Your task to perform on an android device: turn off wifi Image 0: 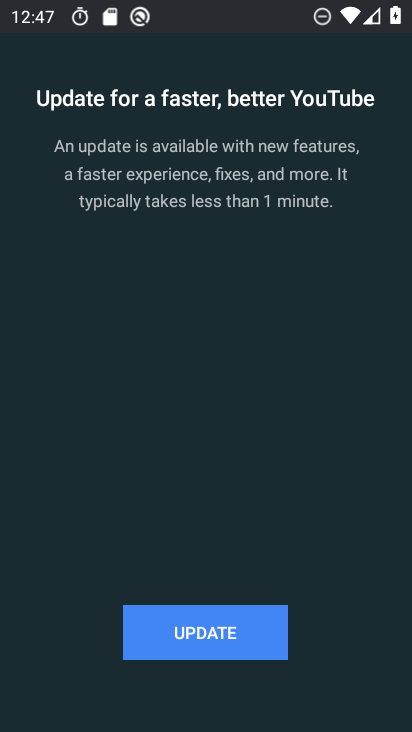
Step 0: press back button
Your task to perform on an android device: turn off wifi Image 1: 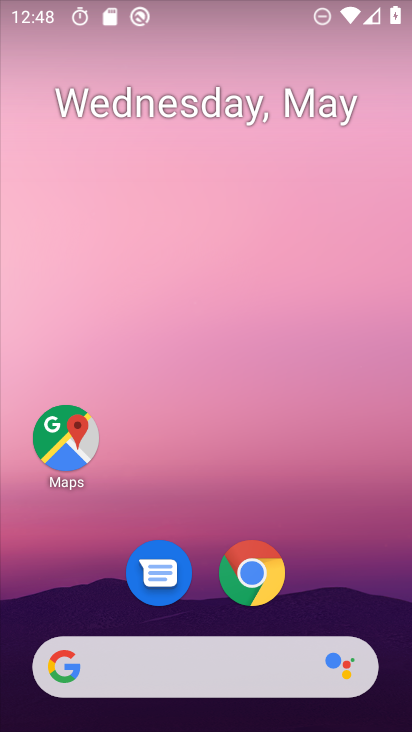
Step 1: drag from (343, 587) to (263, 56)
Your task to perform on an android device: turn off wifi Image 2: 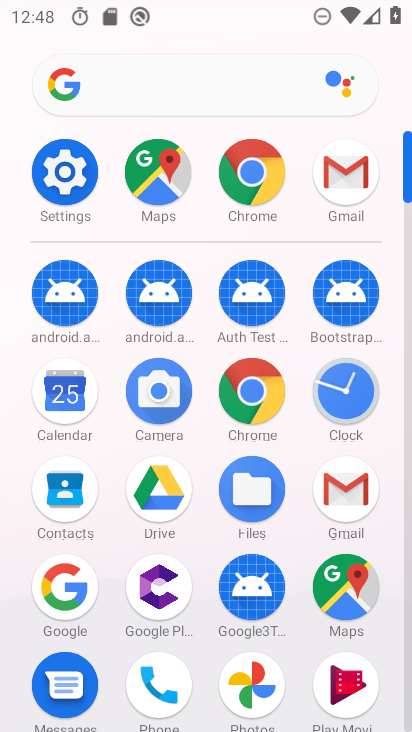
Step 2: click (65, 165)
Your task to perform on an android device: turn off wifi Image 3: 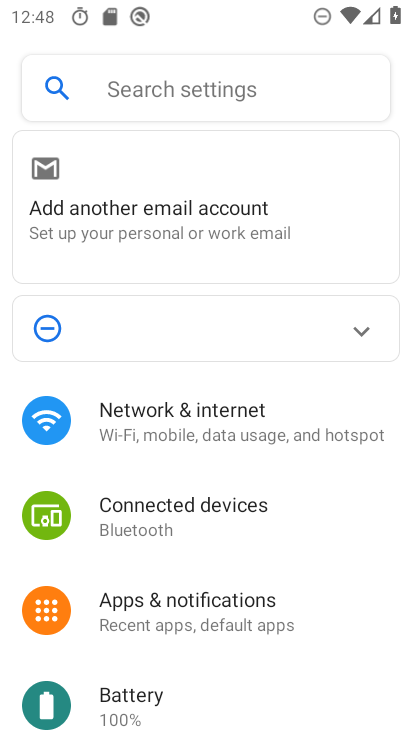
Step 3: click (212, 437)
Your task to perform on an android device: turn off wifi Image 4: 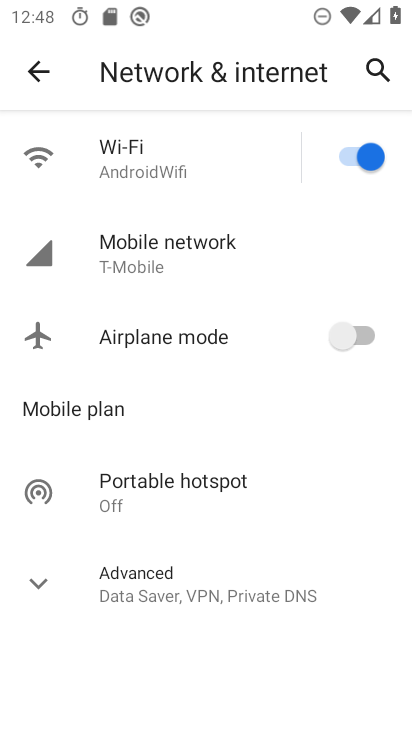
Step 4: click (360, 138)
Your task to perform on an android device: turn off wifi Image 5: 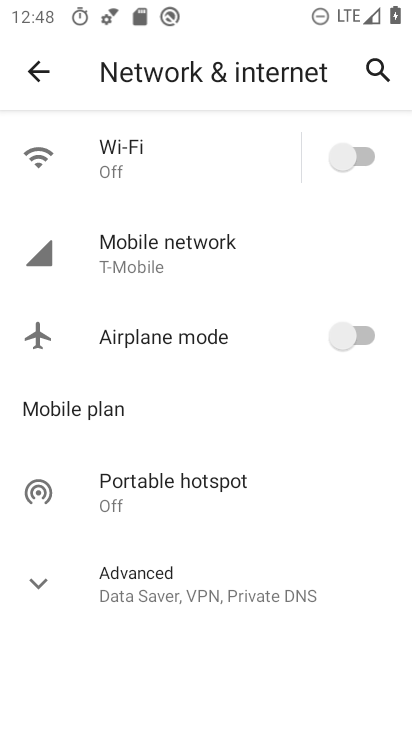
Step 5: task complete